Your task to perform on an android device: Go to Reddit.com Image 0: 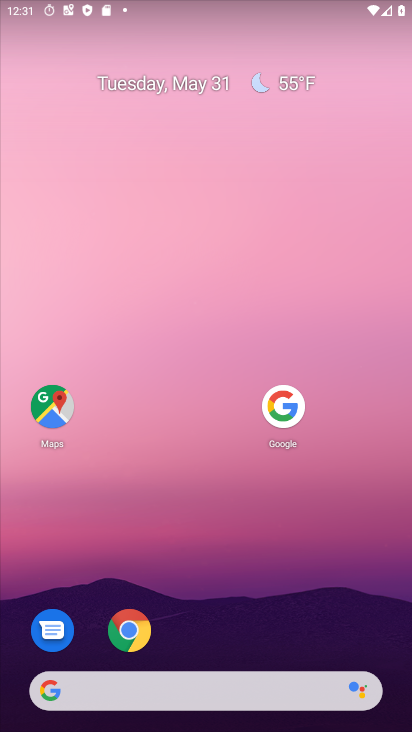
Step 0: click (121, 637)
Your task to perform on an android device: Go to Reddit.com Image 1: 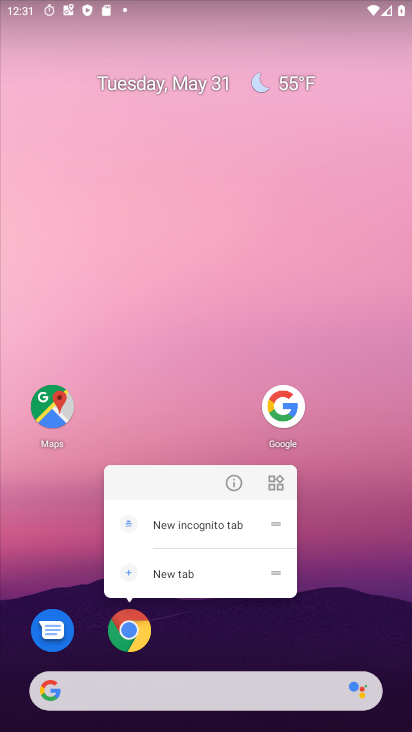
Step 1: click (128, 633)
Your task to perform on an android device: Go to Reddit.com Image 2: 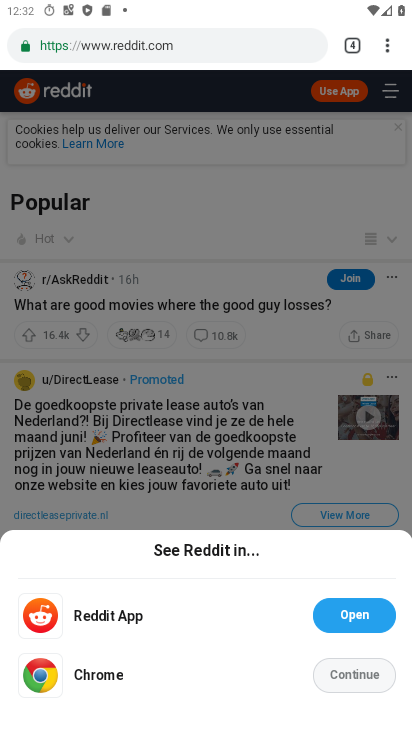
Step 2: task complete